Your task to perform on an android device: turn notification dots on Image 0: 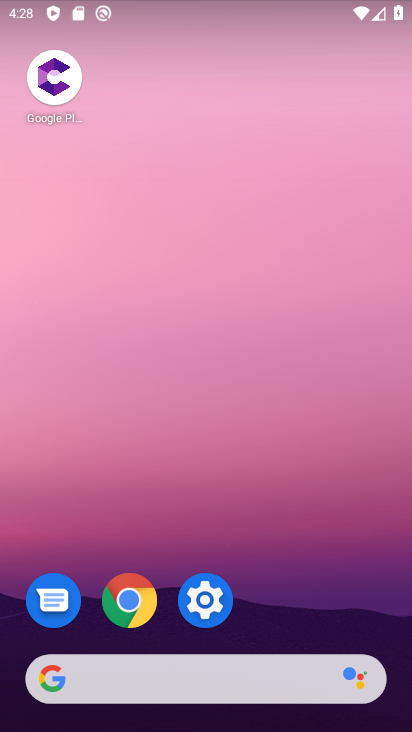
Step 0: drag from (302, 631) to (177, 72)
Your task to perform on an android device: turn notification dots on Image 1: 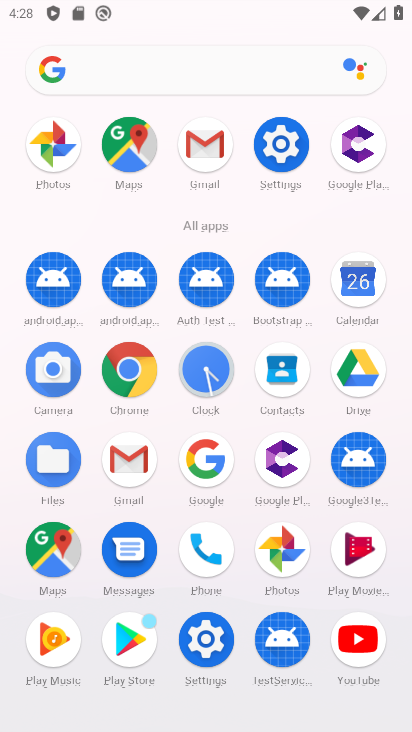
Step 1: click (273, 156)
Your task to perform on an android device: turn notification dots on Image 2: 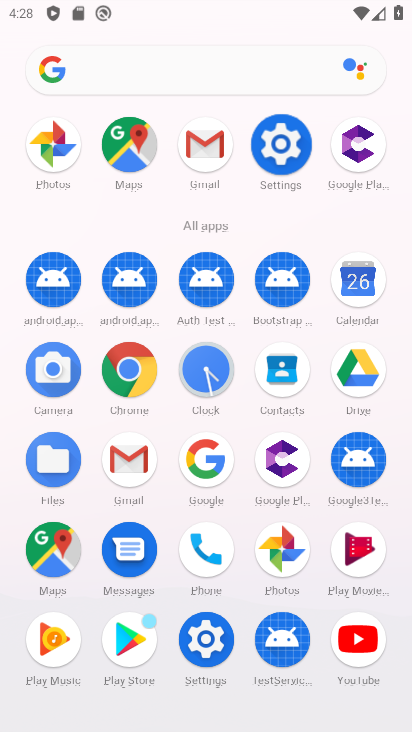
Step 2: click (274, 157)
Your task to perform on an android device: turn notification dots on Image 3: 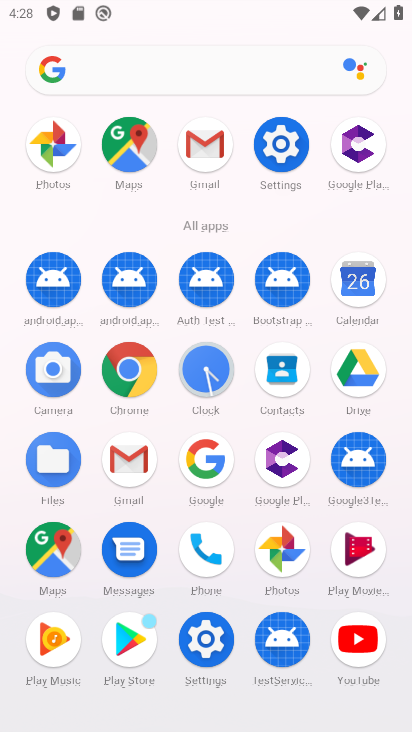
Step 3: click (274, 157)
Your task to perform on an android device: turn notification dots on Image 4: 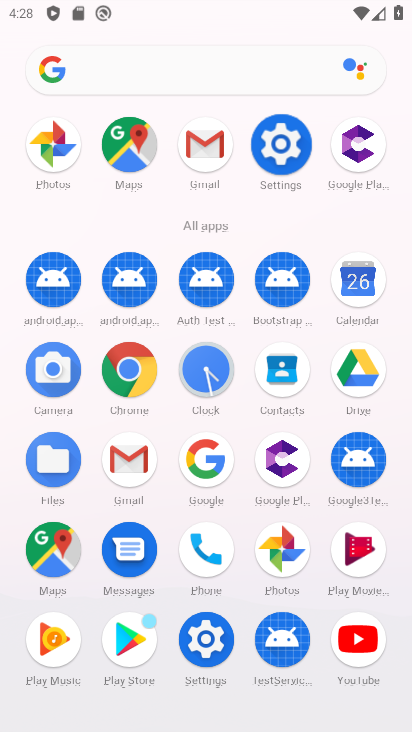
Step 4: click (285, 151)
Your task to perform on an android device: turn notification dots on Image 5: 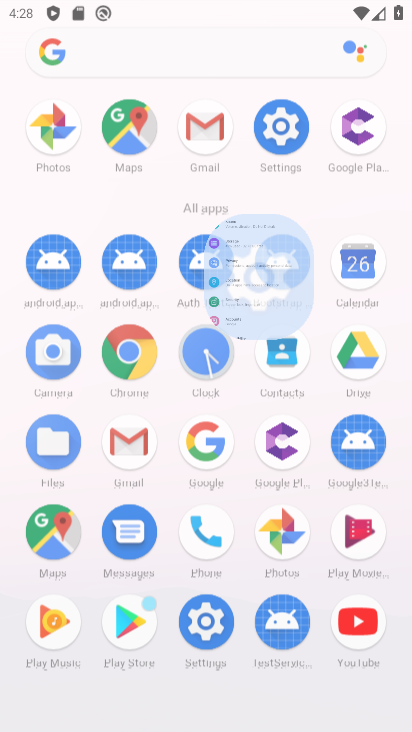
Step 5: click (286, 149)
Your task to perform on an android device: turn notification dots on Image 6: 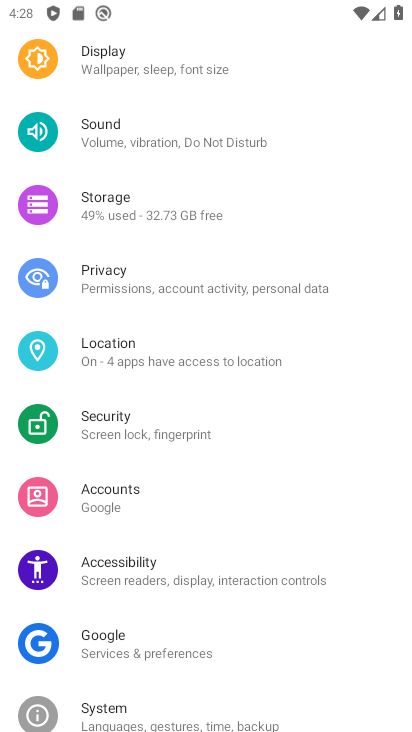
Step 6: click (286, 152)
Your task to perform on an android device: turn notification dots on Image 7: 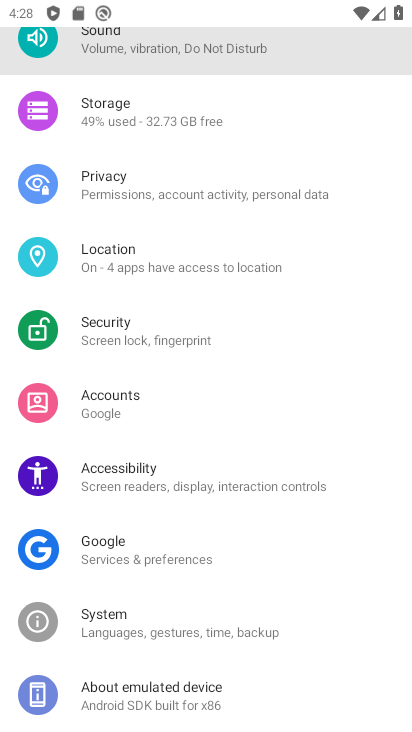
Step 7: click (286, 157)
Your task to perform on an android device: turn notification dots on Image 8: 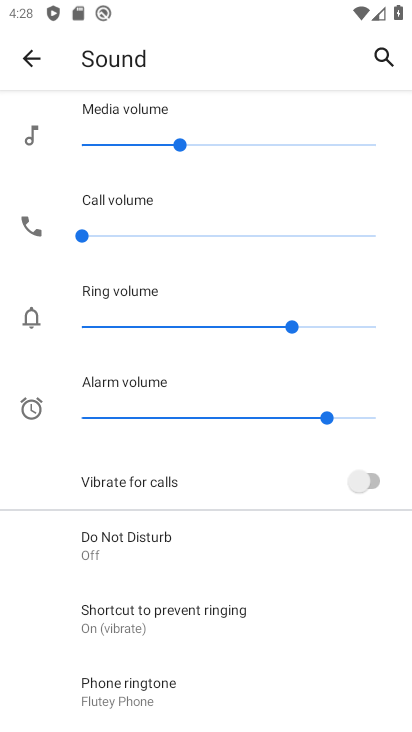
Step 8: click (29, 55)
Your task to perform on an android device: turn notification dots on Image 9: 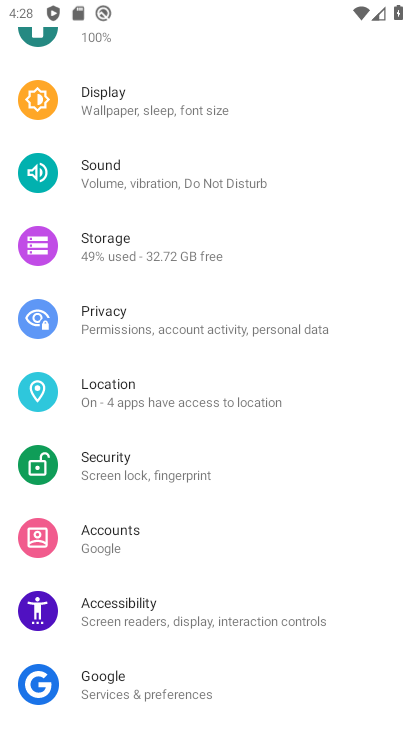
Step 9: drag from (119, 159) to (117, 518)
Your task to perform on an android device: turn notification dots on Image 10: 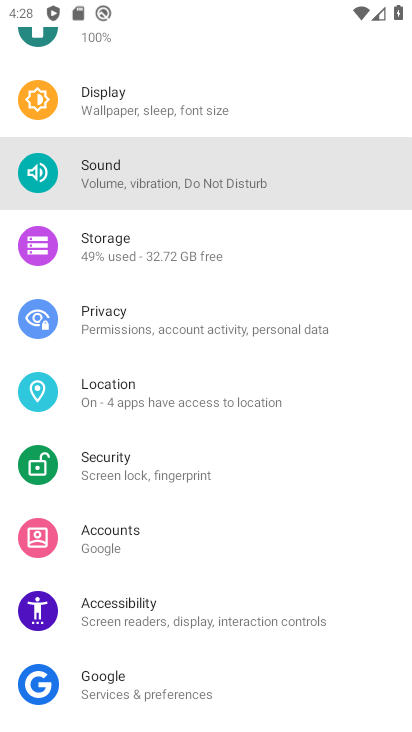
Step 10: drag from (127, 216) to (192, 503)
Your task to perform on an android device: turn notification dots on Image 11: 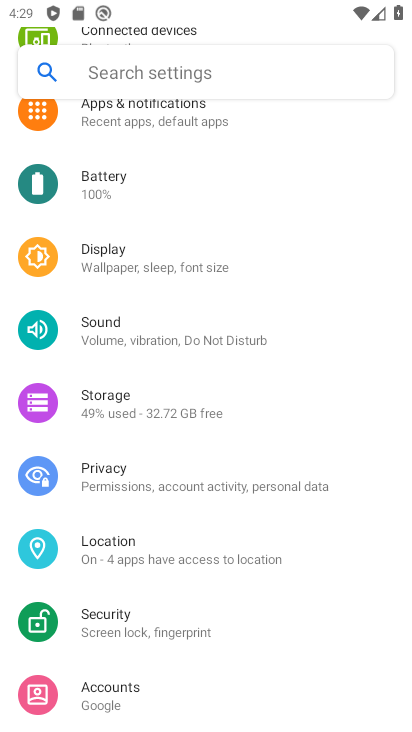
Step 11: drag from (168, 246) to (185, 664)
Your task to perform on an android device: turn notification dots on Image 12: 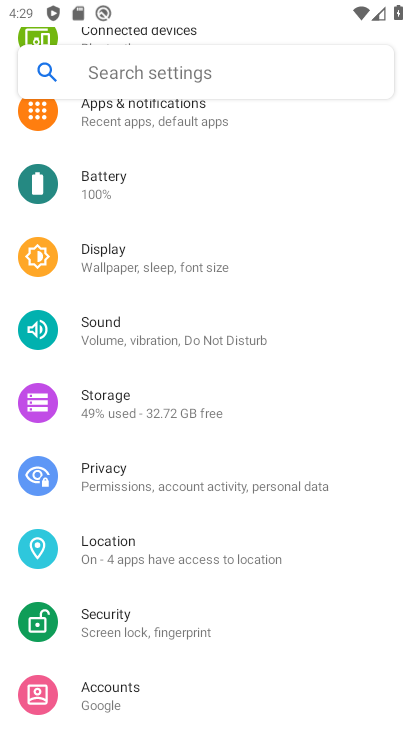
Step 12: click (192, 516)
Your task to perform on an android device: turn notification dots on Image 13: 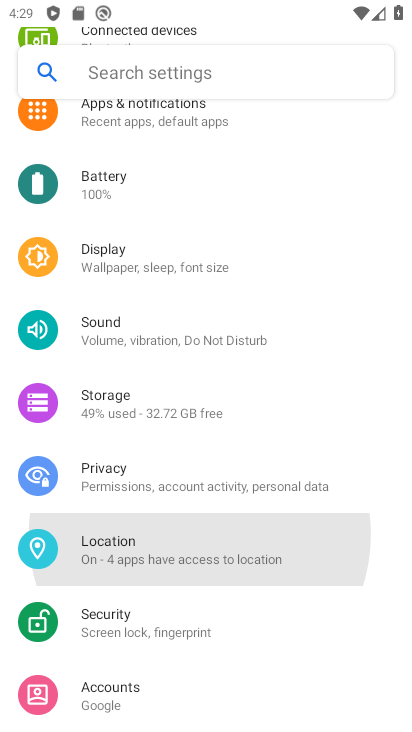
Step 13: drag from (115, 223) to (187, 656)
Your task to perform on an android device: turn notification dots on Image 14: 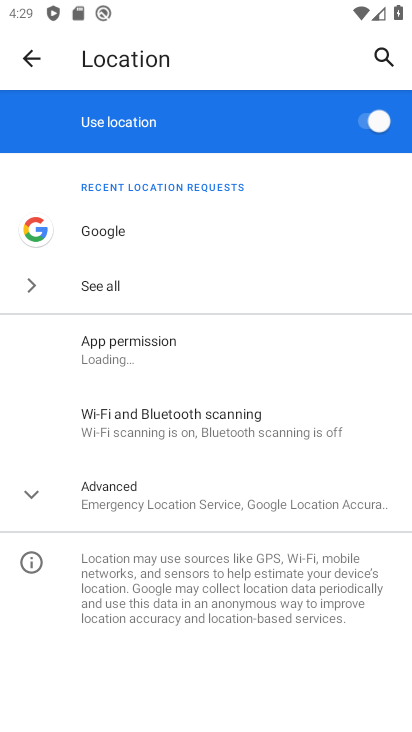
Step 14: click (28, 52)
Your task to perform on an android device: turn notification dots on Image 15: 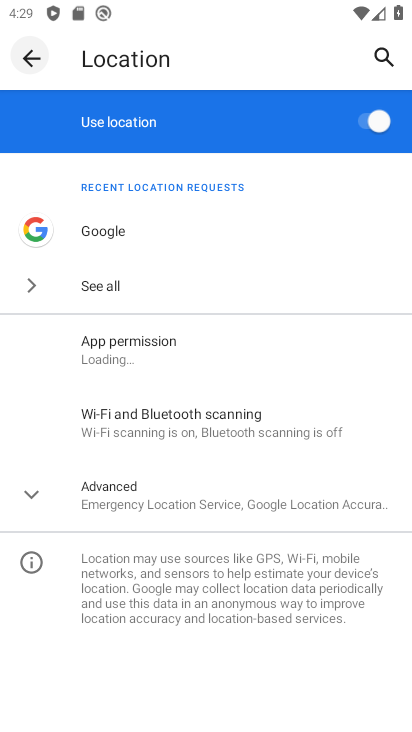
Step 15: click (28, 52)
Your task to perform on an android device: turn notification dots on Image 16: 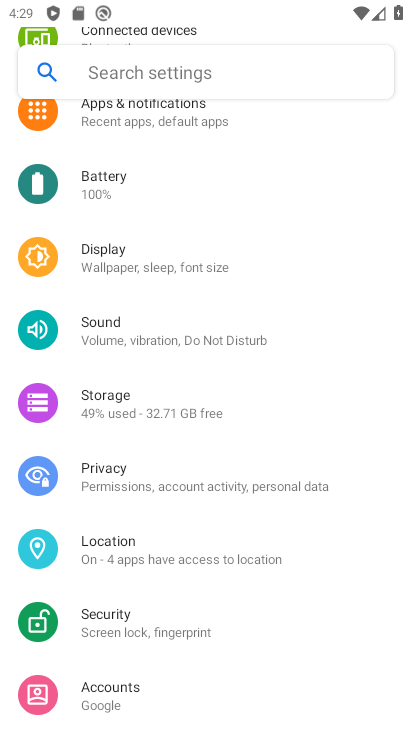
Step 16: click (152, 110)
Your task to perform on an android device: turn notification dots on Image 17: 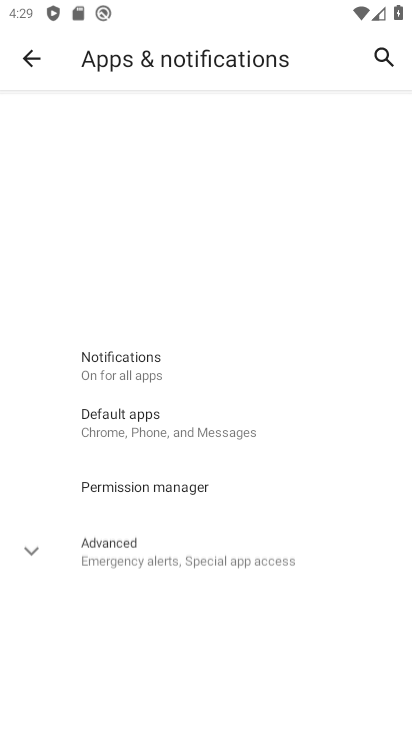
Step 17: click (150, 110)
Your task to perform on an android device: turn notification dots on Image 18: 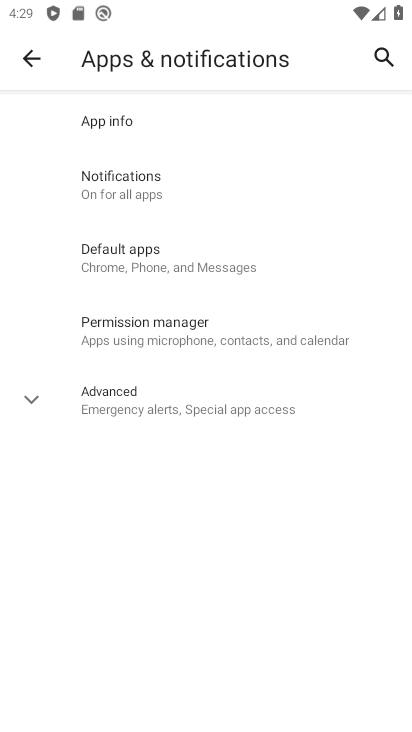
Step 18: click (150, 110)
Your task to perform on an android device: turn notification dots on Image 19: 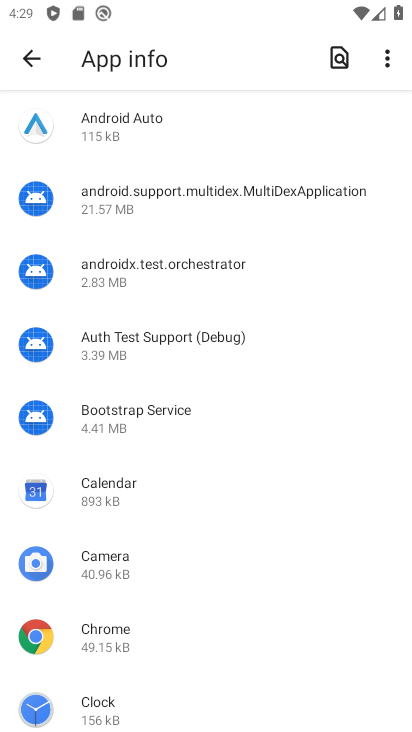
Step 19: click (27, 53)
Your task to perform on an android device: turn notification dots on Image 20: 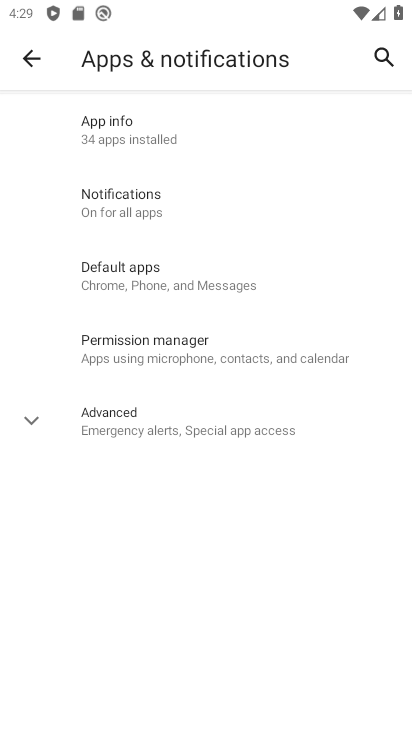
Step 20: click (116, 198)
Your task to perform on an android device: turn notification dots on Image 21: 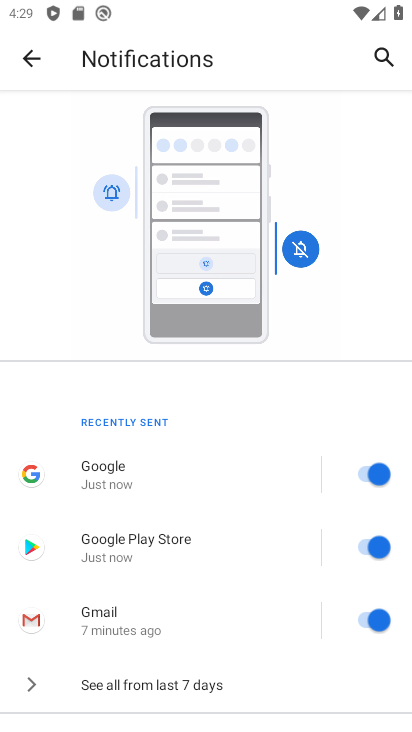
Step 21: click (123, 210)
Your task to perform on an android device: turn notification dots on Image 22: 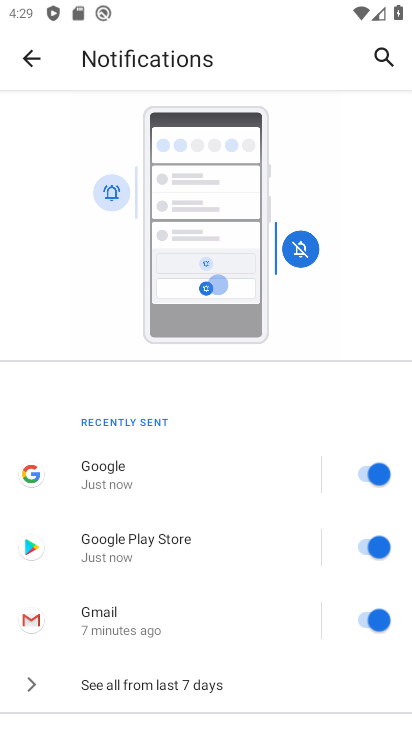
Step 22: click (138, 144)
Your task to perform on an android device: turn notification dots on Image 23: 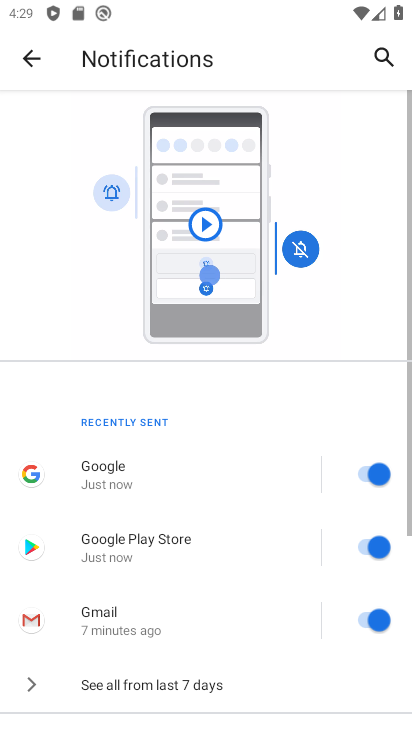
Step 23: drag from (192, 472) to (135, 187)
Your task to perform on an android device: turn notification dots on Image 24: 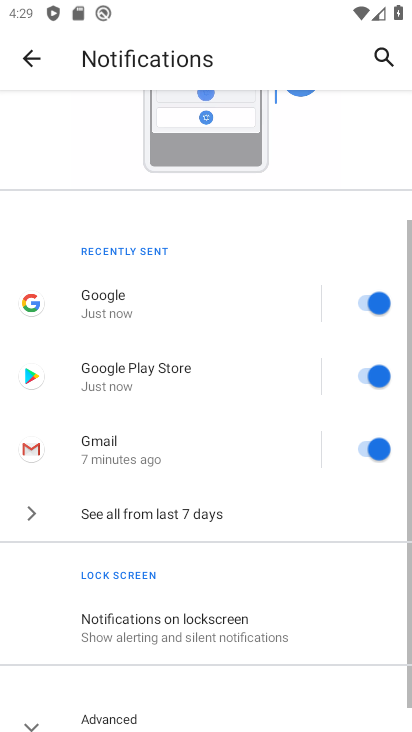
Step 24: drag from (187, 474) to (178, 190)
Your task to perform on an android device: turn notification dots on Image 25: 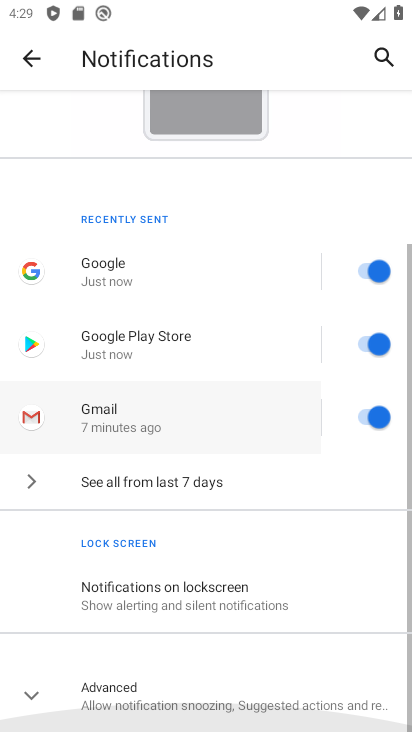
Step 25: drag from (207, 470) to (164, 130)
Your task to perform on an android device: turn notification dots on Image 26: 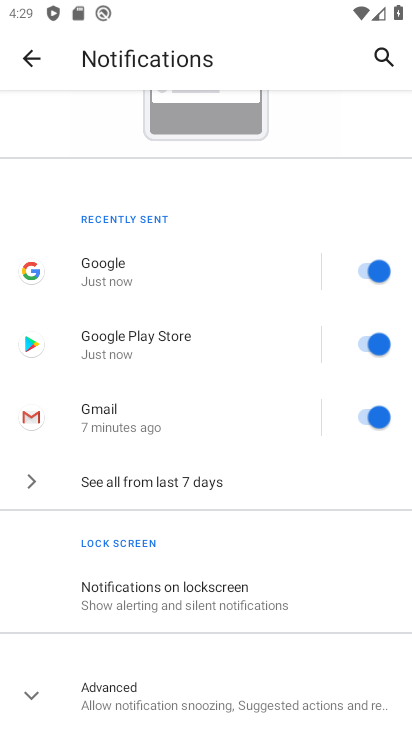
Step 26: click (120, 690)
Your task to perform on an android device: turn notification dots on Image 27: 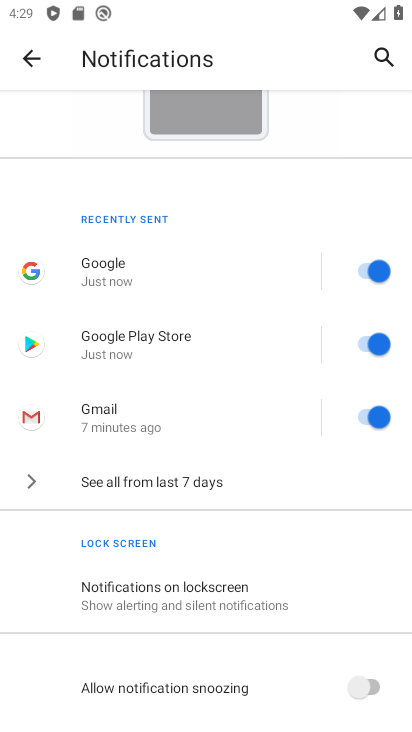
Step 27: click (229, 465)
Your task to perform on an android device: turn notification dots on Image 28: 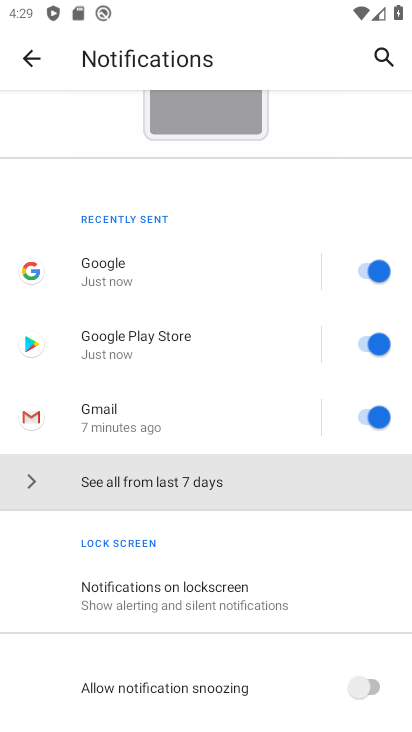
Step 28: click (200, 256)
Your task to perform on an android device: turn notification dots on Image 29: 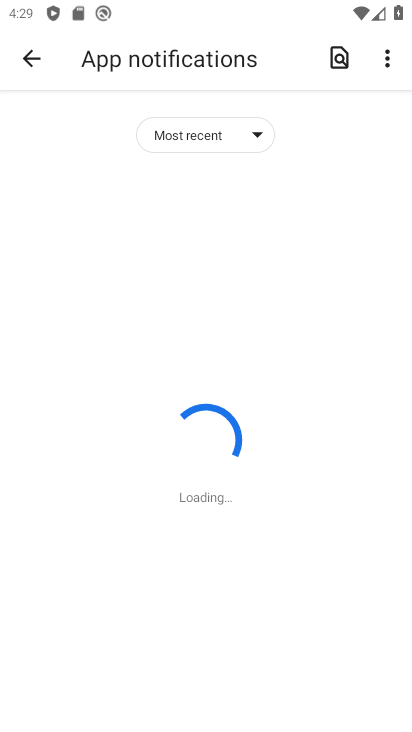
Step 29: drag from (247, 609) to (242, 291)
Your task to perform on an android device: turn notification dots on Image 30: 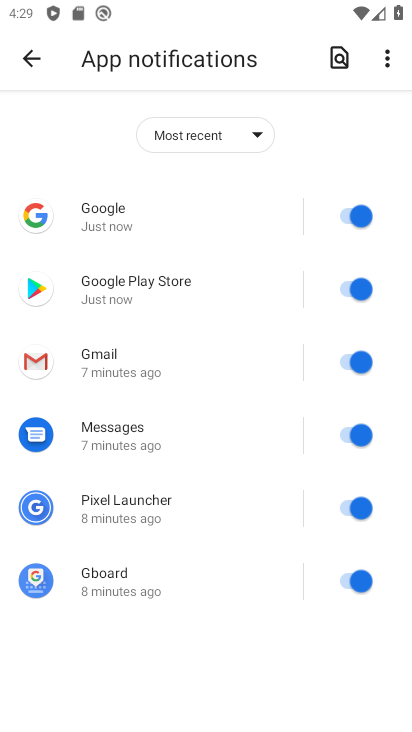
Step 30: click (147, 116)
Your task to perform on an android device: turn notification dots on Image 31: 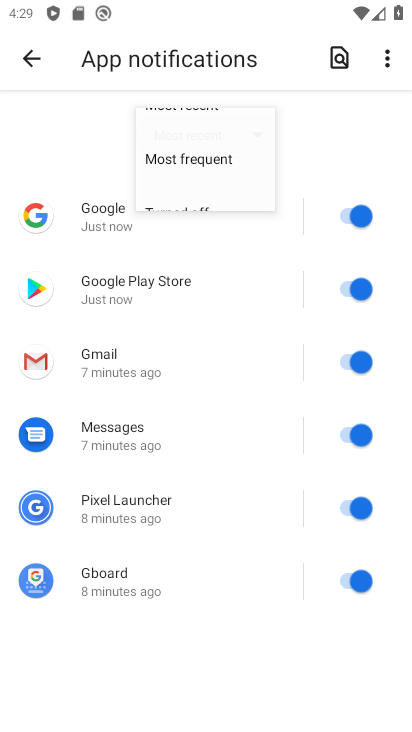
Step 31: click (170, 62)
Your task to perform on an android device: turn notification dots on Image 32: 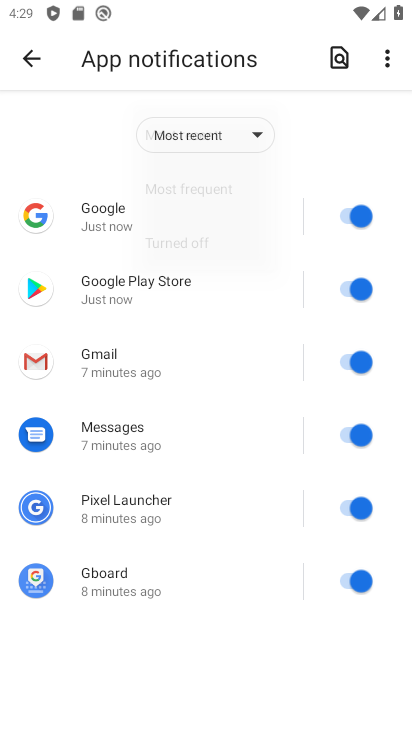
Step 32: click (135, 42)
Your task to perform on an android device: turn notification dots on Image 33: 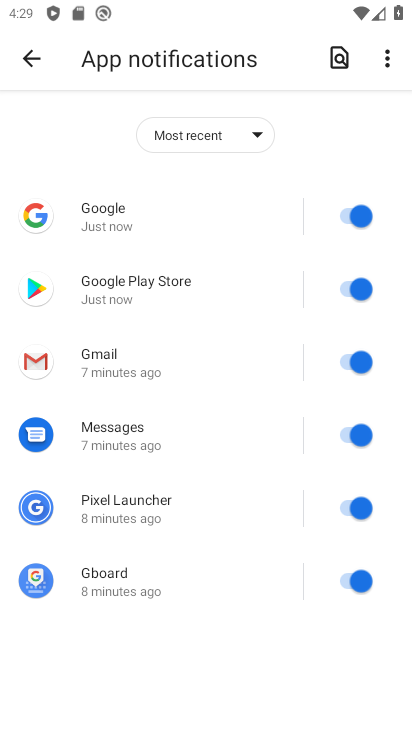
Step 33: drag from (162, 362) to (157, 83)
Your task to perform on an android device: turn notification dots on Image 34: 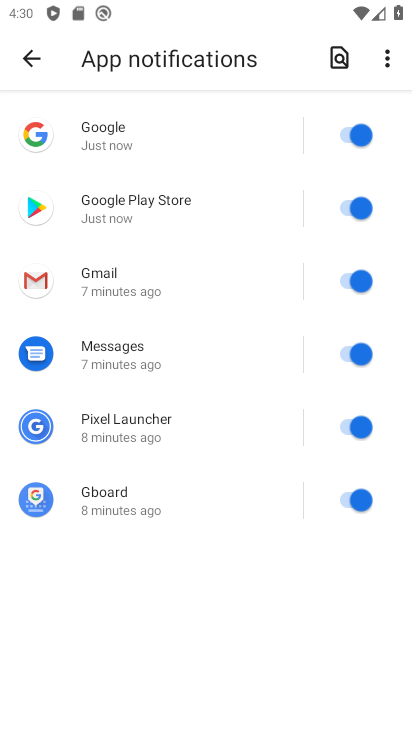
Step 34: drag from (188, 481) to (153, 148)
Your task to perform on an android device: turn notification dots on Image 35: 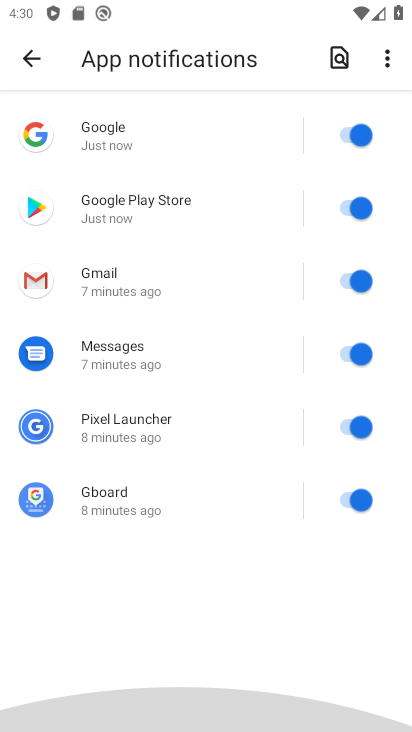
Step 35: drag from (173, 465) to (177, 89)
Your task to perform on an android device: turn notification dots on Image 36: 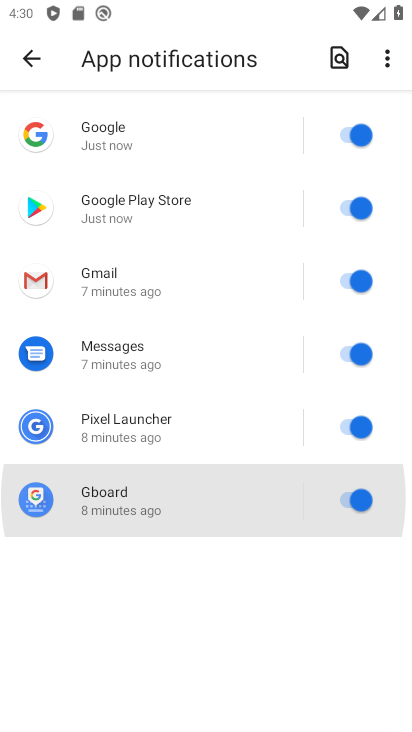
Step 36: drag from (214, 429) to (176, 81)
Your task to perform on an android device: turn notification dots on Image 37: 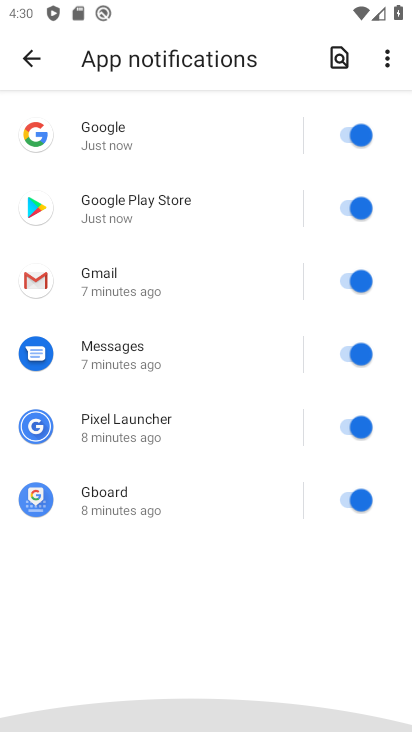
Step 37: drag from (209, 346) to (162, 86)
Your task to perform on an android device: turn notification dots on Image 38: 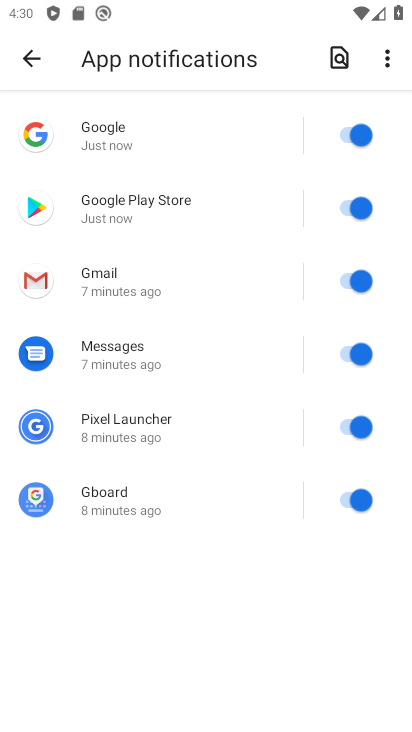
Step 38: click (180, 88)
Your task to perform on an android device: turn notification dots on Image 39: 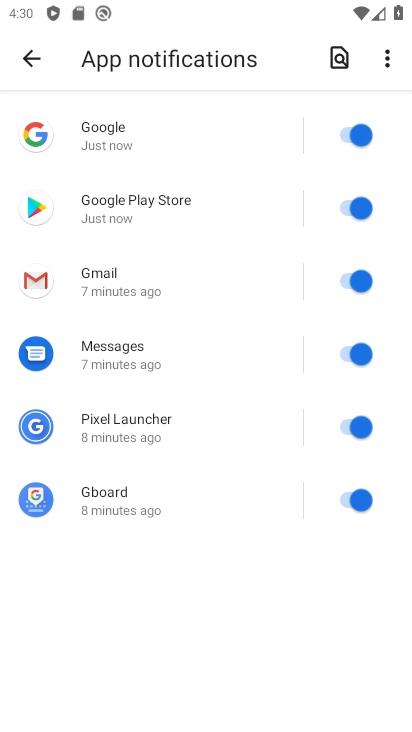
Step 39: click (25, 63)
Your task to perform on an android device: turn notification dots on Image 40: 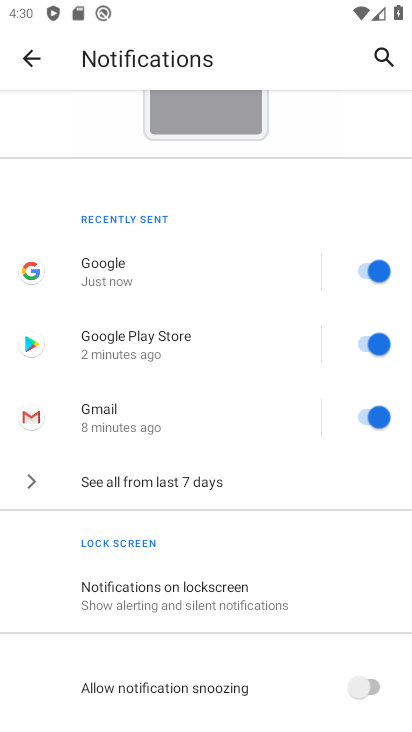
Step 40: task complete